Your task to perform on an android device: What's on the menu at Domino's? Image 0: 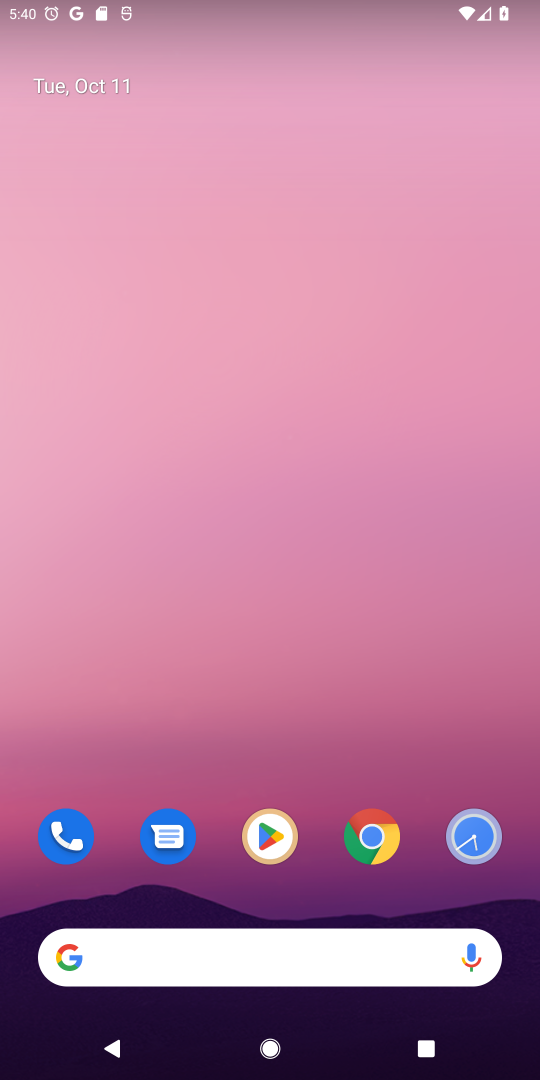
Step 0: click (218, 941)
Your task to perform on an android device: What's on the menu at Domino's? Image 1: 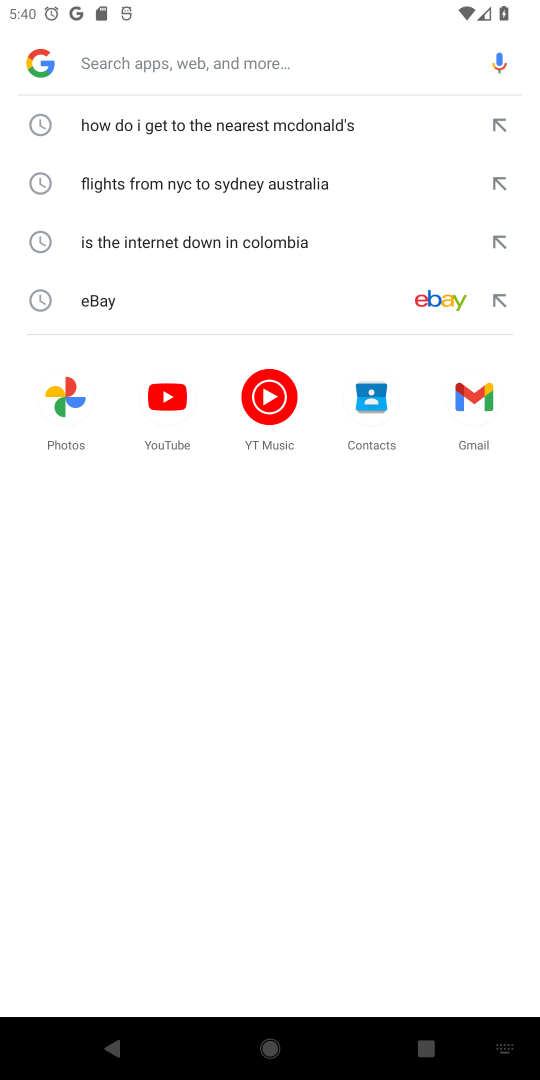
Step 1: type "I get to the nearest McDonalds?"
Your task to perform on an android device: What's on the menu at Domino's? Image 2: 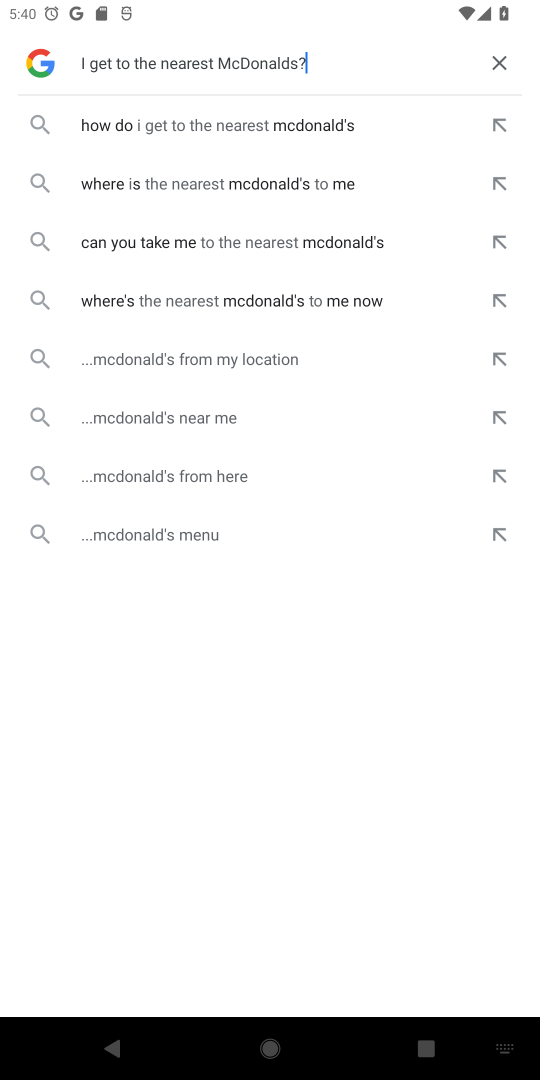
Step 2: click (310, 126)
Your task to perform on an android device: What's on the menu at Domino's? Image 3: 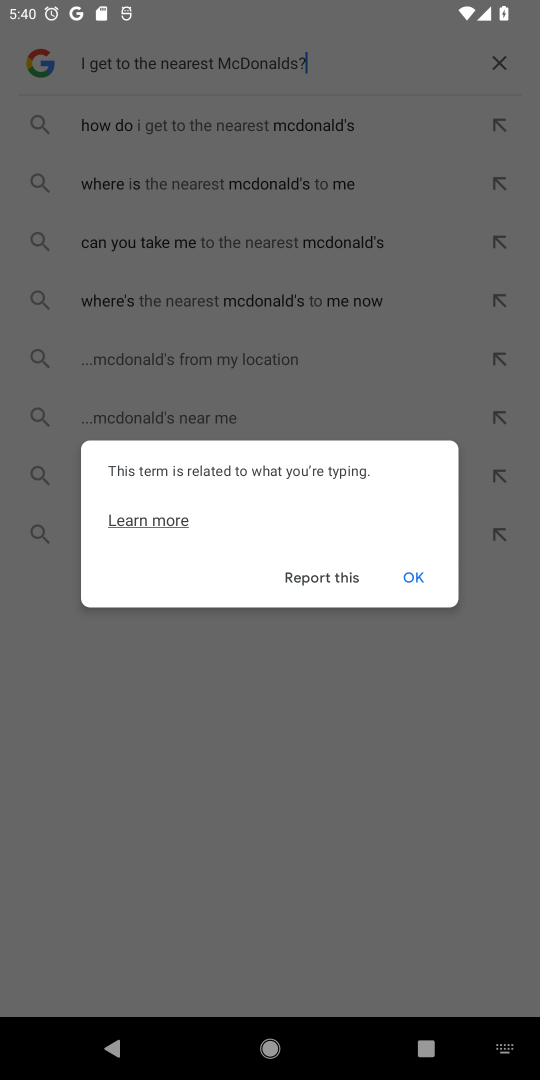
Step 3: click (433, 590)
Your task to perform on an android device: What's on the menu at Domino's? Image 4: 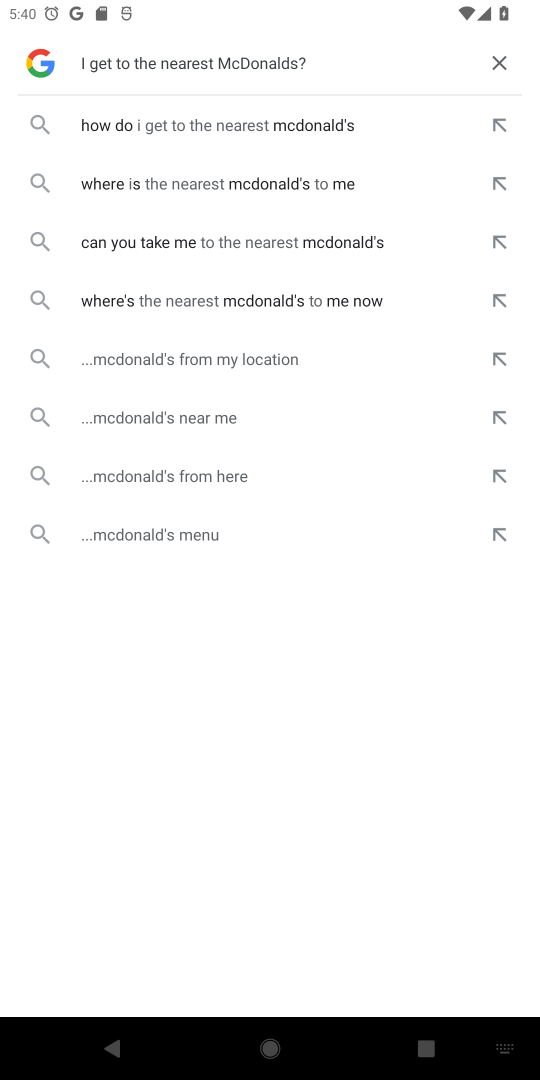
Step 4: task complete